Your task to perform on an android device: Search for sushi restaurants on Maps Image 0: 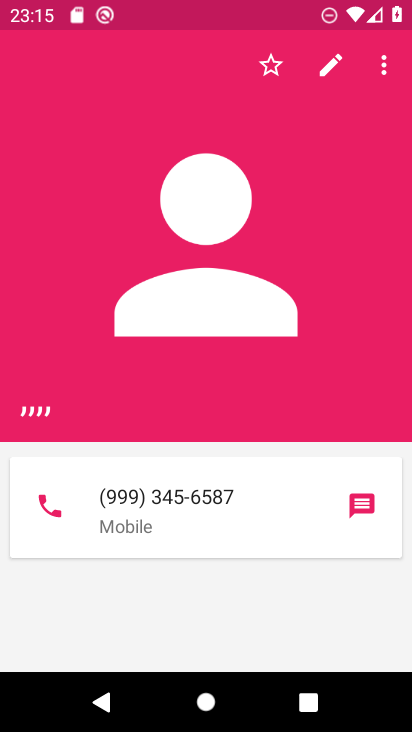
Step 0: press home button
Your task to perform on an android device: Search for sushi restaurants on Maps Image 1: 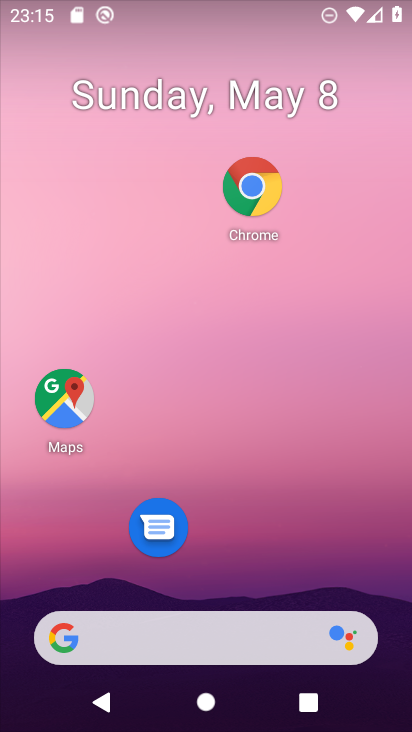
Step 1: drag from (323, 403) to (333, 227)
Your task to perform on an android device: Search for sushi restaurants on Maps Image 2: 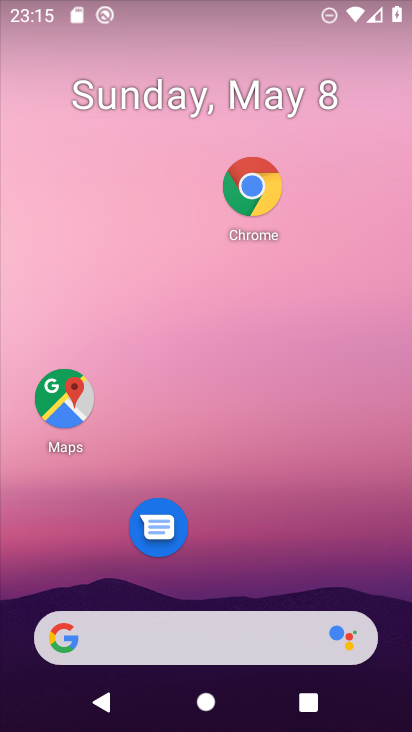
Step 2: drag from (254, 538) to (254, 306)
Your task to perform on an android device: Search for sushi restaurants on Maps Image 3: 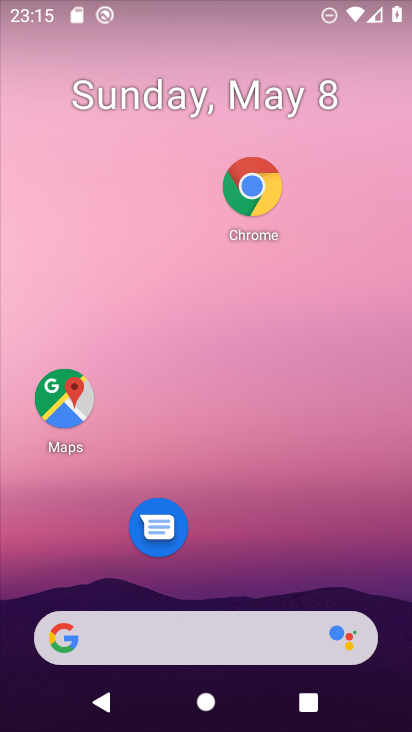
Step 3: drag from (268, 558) to (345, 128)
Your task to perform on an android device: Search for sushi restaurants on Maps Image 4: 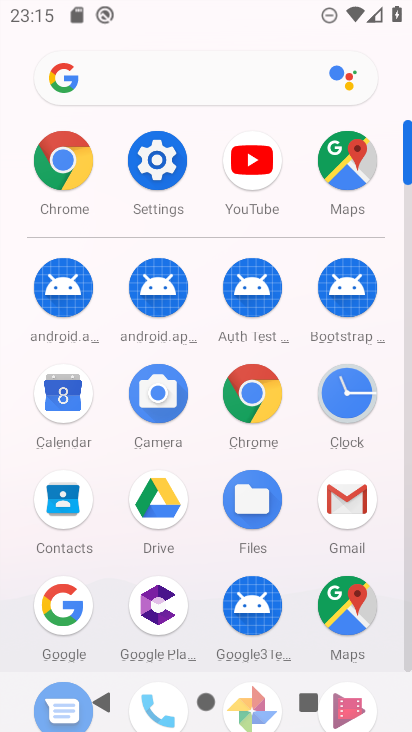
Step 4: click (351, 600)
Your task to perform on an android device: Search for sushi restaurants on Maps Image 5: 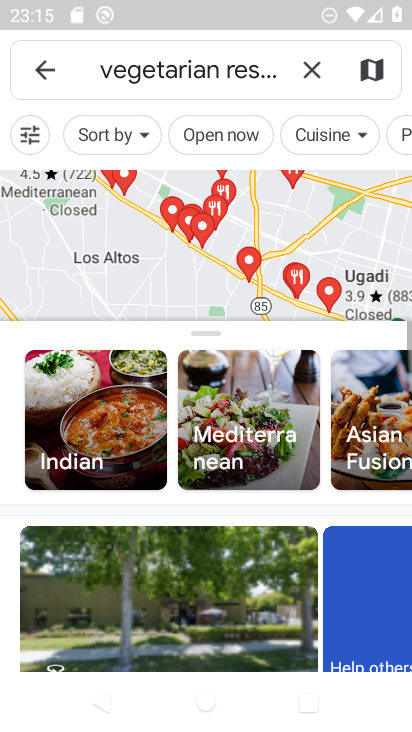
Step 5: click (302, 65)
Your task to perform on an android device: Search for sushi restaurants on Maps Image 6: 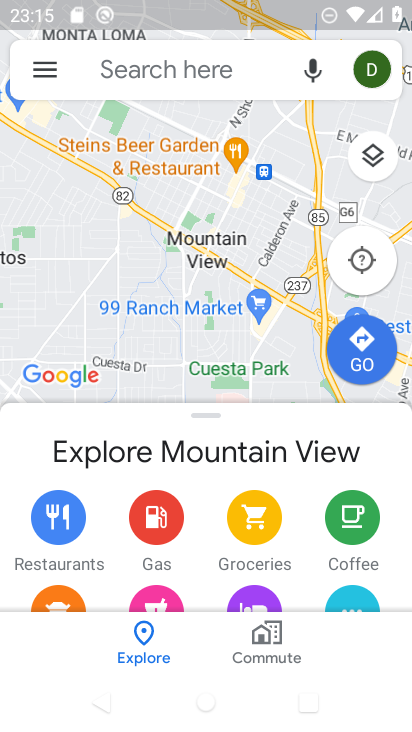
Step 6: click (176, 69)
Your task to perform on an android device: Search for sushi restaurants on Maps Image 7: 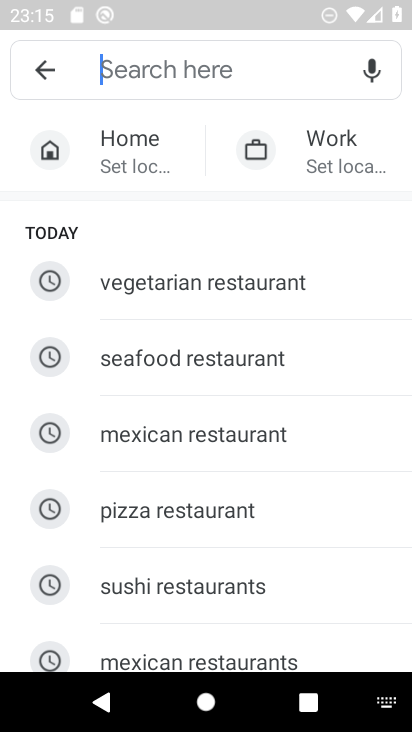
Step 7: click (238, 585)
Your task to perform on an android device: Search for sushi restaurants on Maps Image 8: 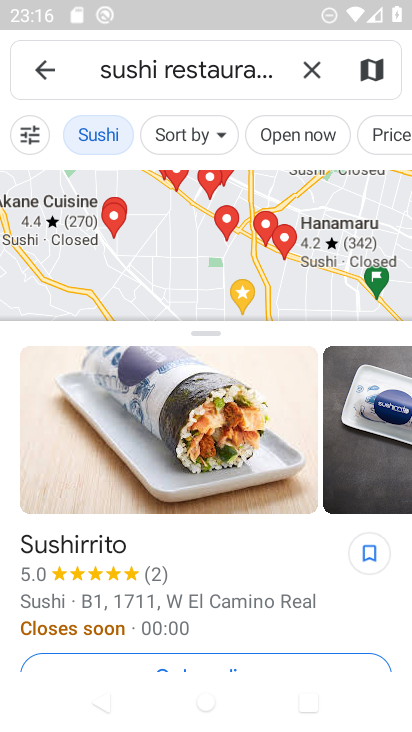
Step 8: task complete